Your task to perform on an android device: Open CNN.com Image 0: 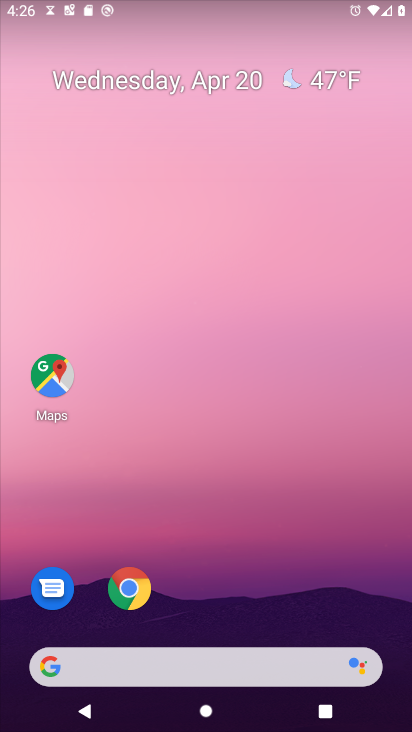
Step 0: click (134, 591)
Your task to perform on an android device: Open CNN.com Image 1: 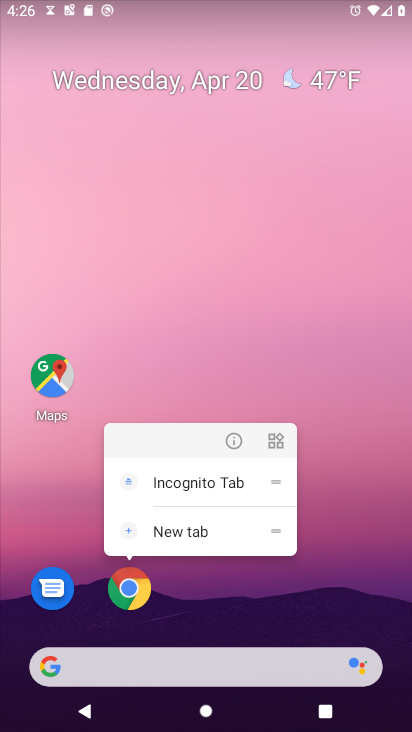
Step 1: click (135, 590)
Your task to perform on an android device: Open CNN.com Image 2: 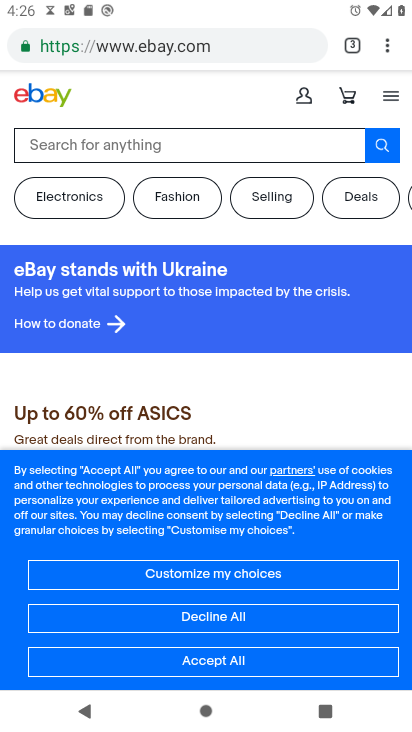
Step 2: click (175, 49)
Your task to perform on an android device: Open CNN.com Image 3: 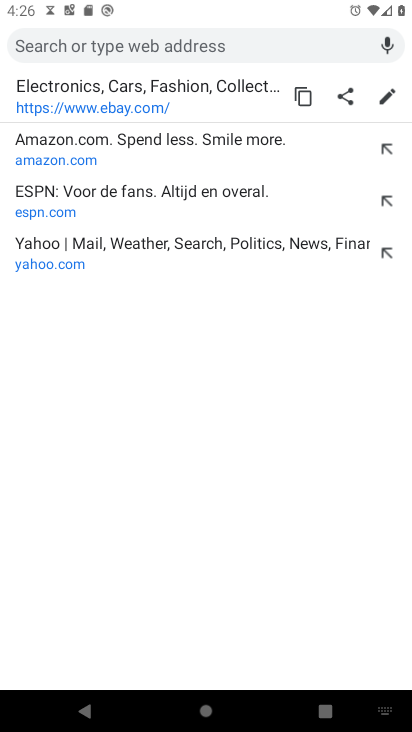
Step 3: type "CCN.com"
Your task to perform on an android device: Open CNN.com Image 4: 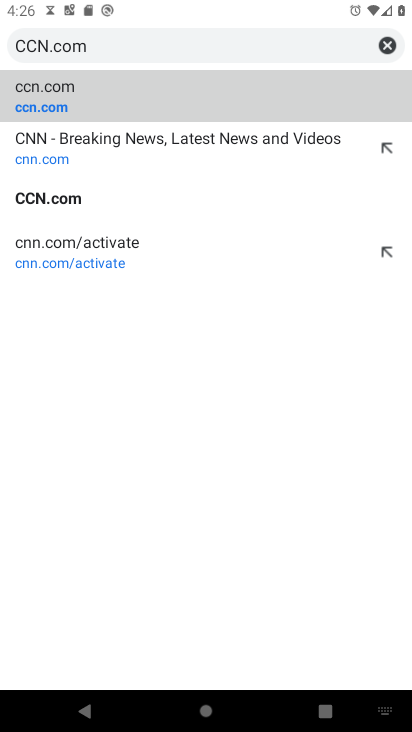
Step 4: click (67, 146)
Your task to perform on an android device: Open CNN.com Image 5: 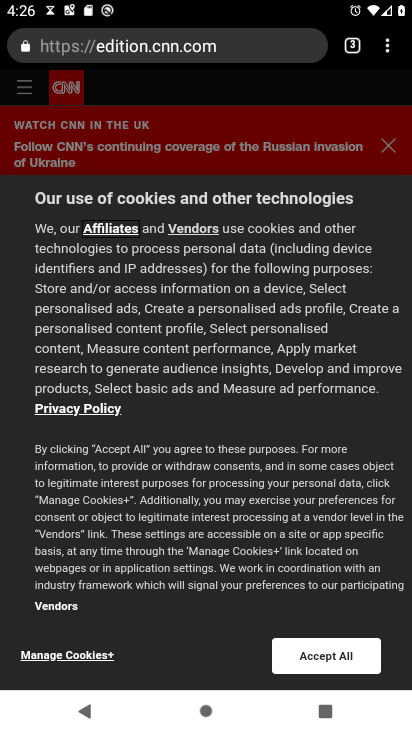
Step 5: task complete